Your task to perform on an android device: change notification settings in the gmail app Image 0: 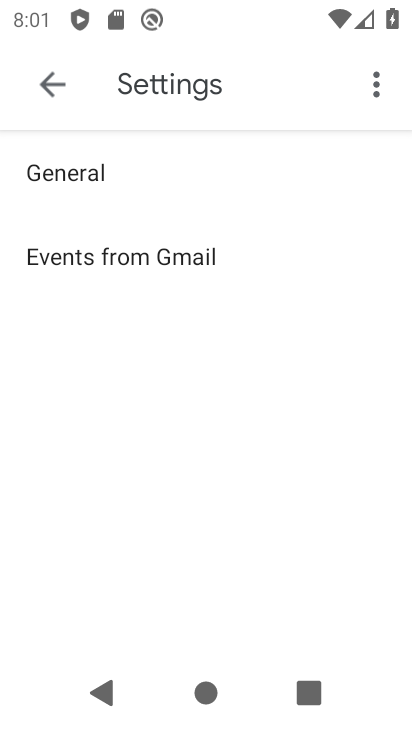
Step 0: press back button
Your task to perform on an android device: change notification settings in the gmail app Image 1: 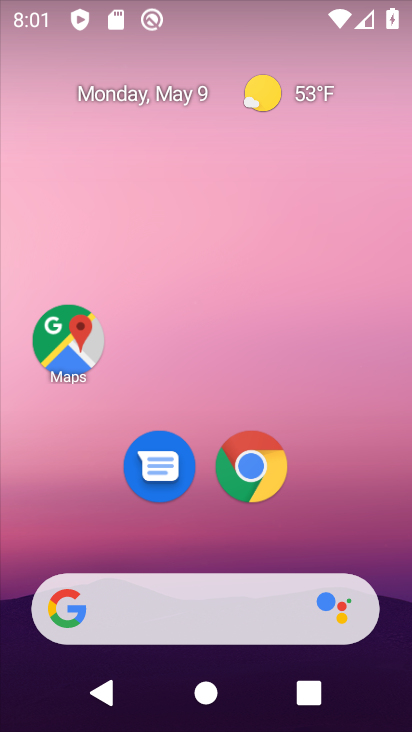
Step 1: drag from (334, 501) to (256, 70)
Your task to perform on an android device: change notification settings in the gmail app Image 2: 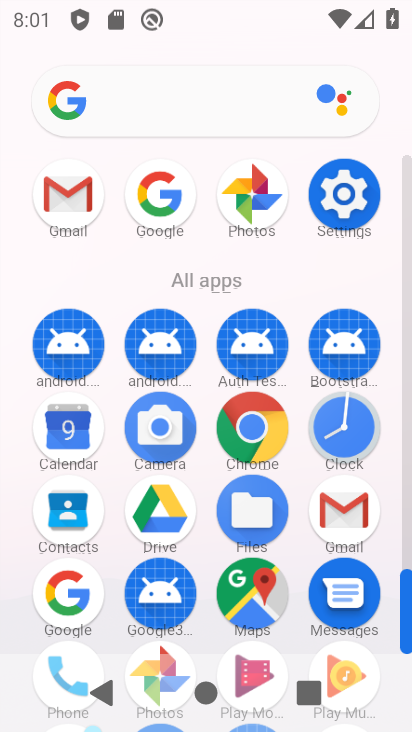
Step 2: click (68, 190)
Your task to perform on an android device: change notification settings in the gmail app Image 3: 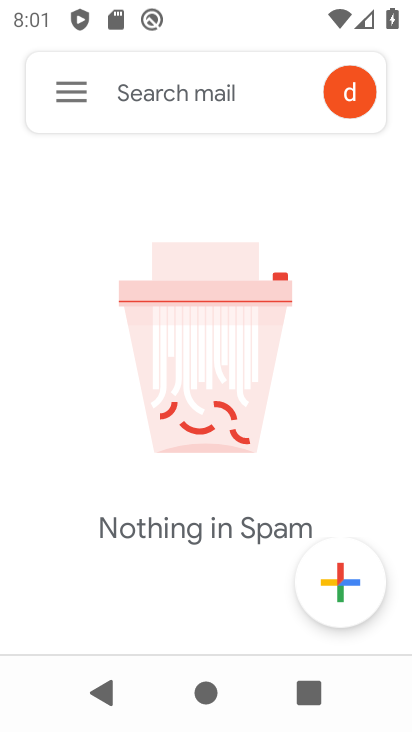
Step 3: click (77, 97)
Your task to perform on an android device: change notification settings in the gmail app Image 4: 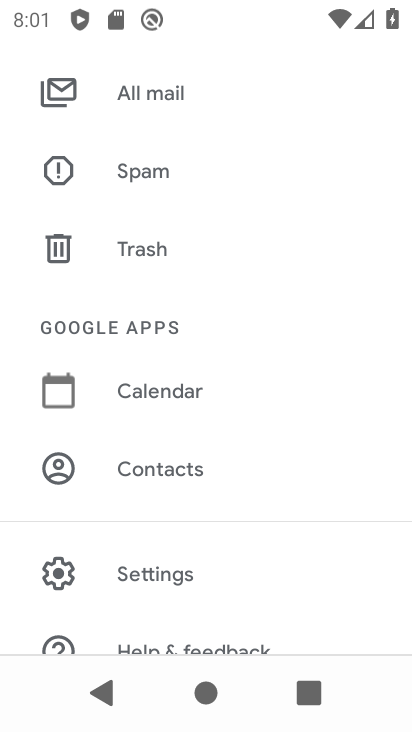
Step 4: click (130, 576)
Your task to perform on an android device: change notification settings in the gmail app Image 5: 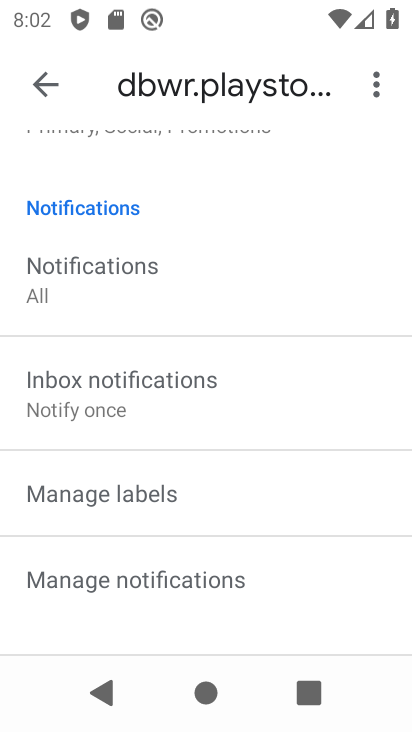
Step 5: click (94, 571)
Your task to perform on an android device: change notification settings in the gmail app Image 6: 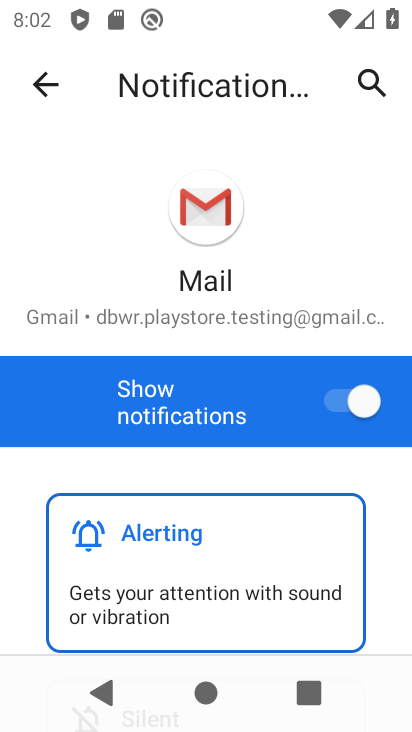
Step 6: click (354, 401)
Your task to perform on an android device: change notification settings in the gmail app Image 7: 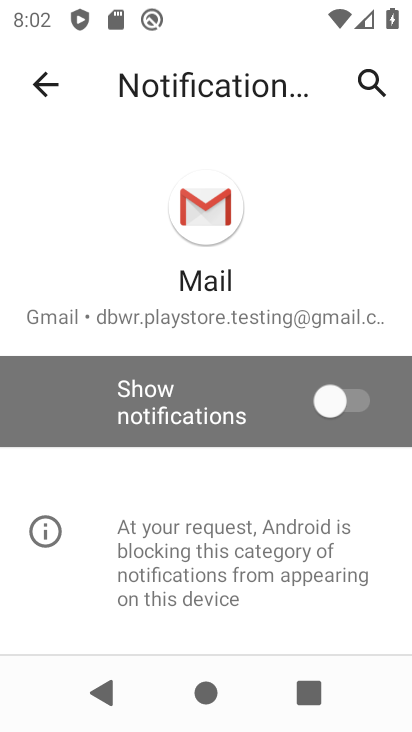
Step 7: task complete